Your task to perform on an android device: open app "Google Duo" (install if not already installed) Image 0: 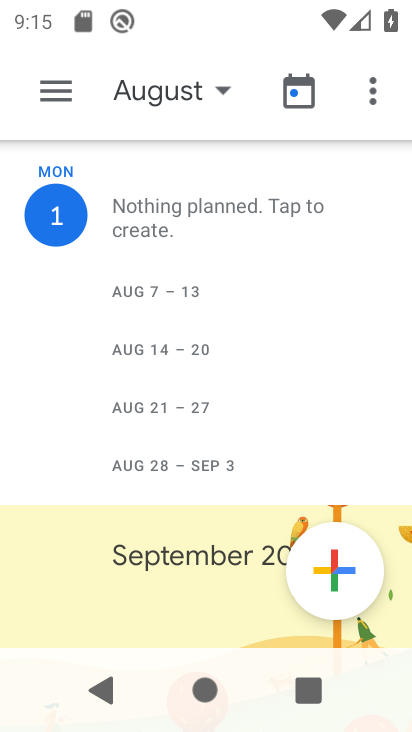
Step 0: press home button
Your task to perform on an android device: open app "Google Duo" (install if not already installed) Image 1: 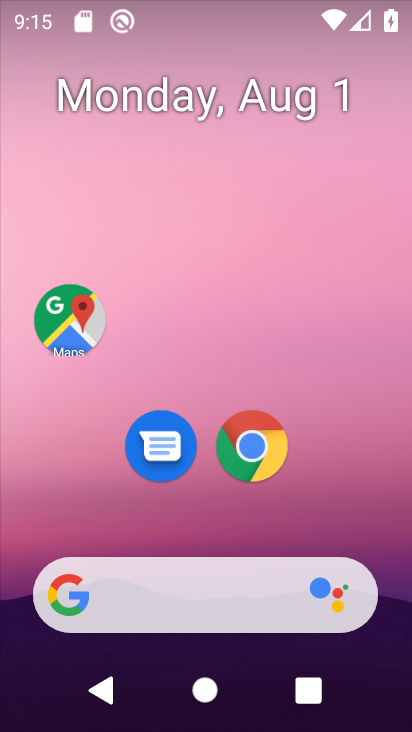
Step 1: drag from (230, 488) to (254, 96)
Your task to perform on an android device: open app "Google Duo" (install if not already installed) Image 2: 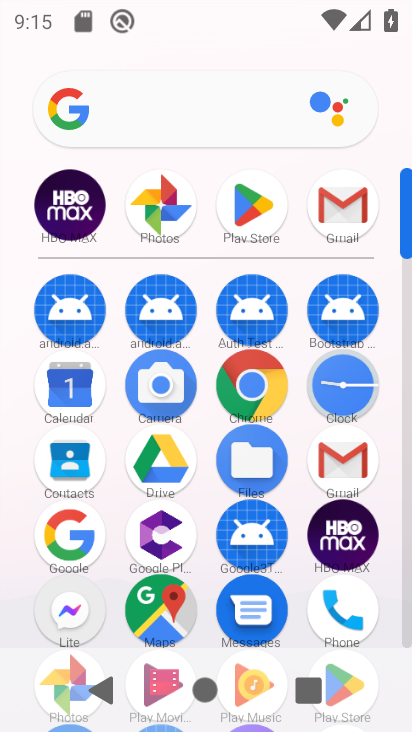
Step 2: click (245, 243)
Your task to perform on an android device: open app "Google Duo" (install if not already installed) Image 3: 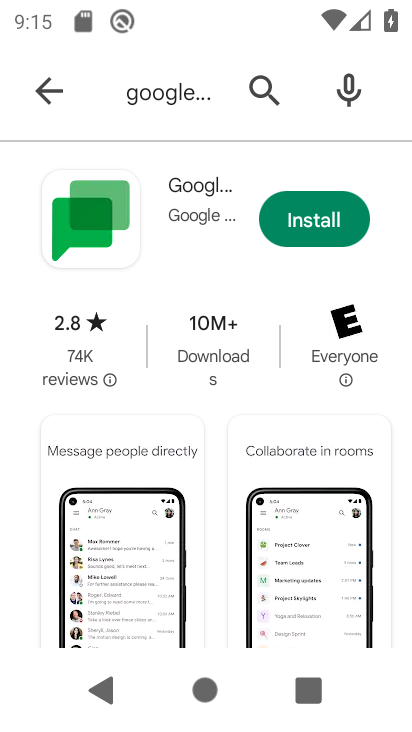
Step 3: click (300, 95)
Your task to perform on an android device: open app "Google Duo" (install if not already installed) Image 4: 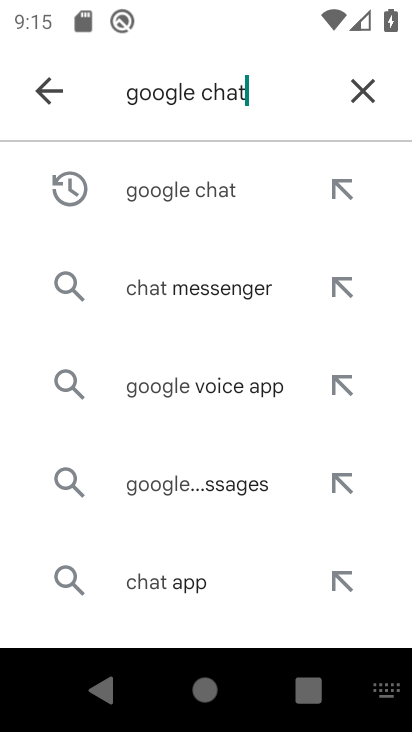
Step 4: click (354, 96)
Your task to perform on an android device: open app "Google Duo" (install if not already installed) Image 5: 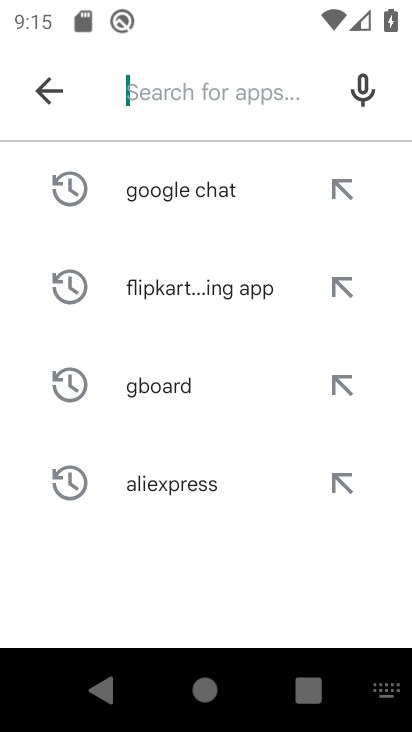
Step 5: type "Google Duo"
Your task to perform on an android device: open app "Google Duo" (install if not already installed) Image 6: 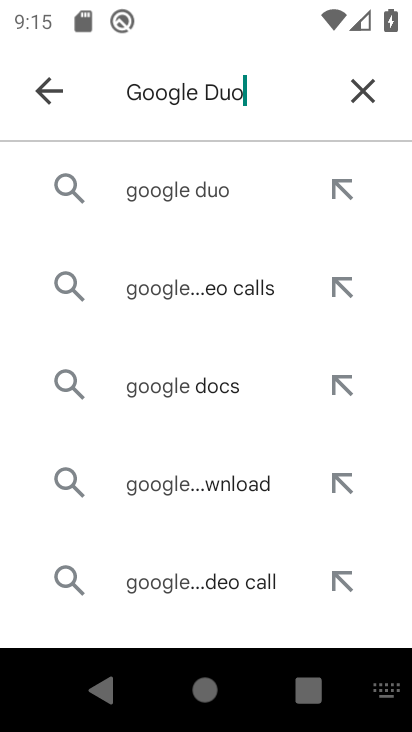
Step 6: click (169, 184)
Your task to perform on an android device: open app "Google Duo" (install if not already installed) Image 7: 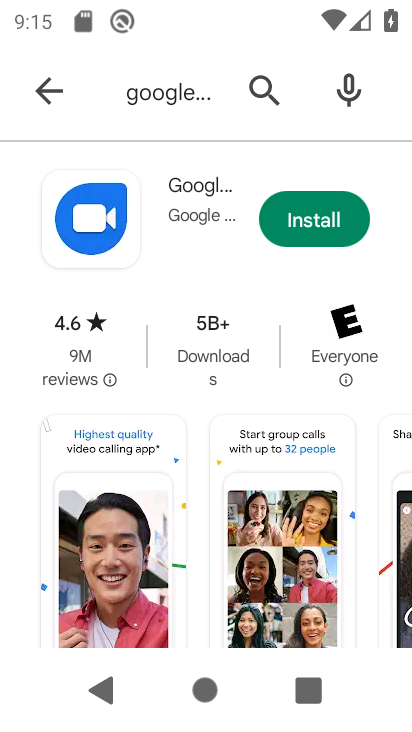
Step 7: click (277, 217)
Your task to perform on an android device: open app "Google Duo" (install if not already installed) Image 8: 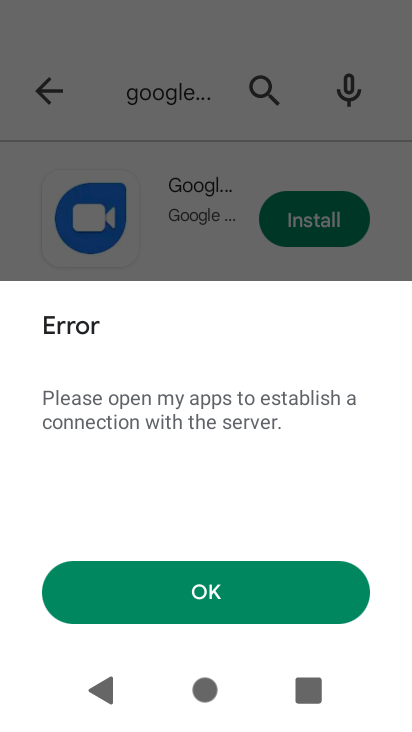
Step 8: click (226, 600)
Your task to perform on an android device: open app "Google Duo" (install if not already installed) Image 9: 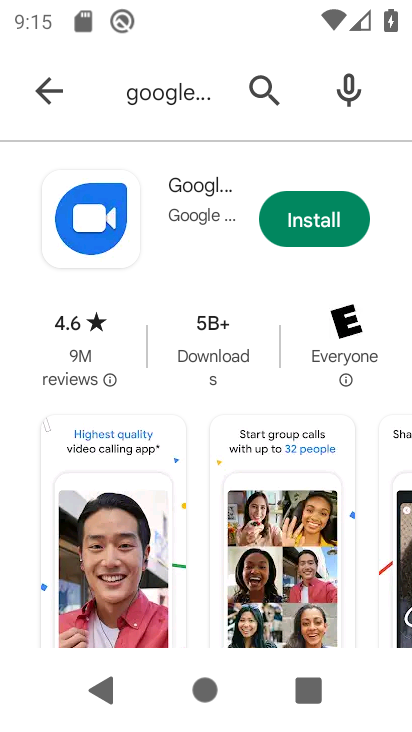
Step 9: task complete